Your task to perform on an android device: Search for Mexican restaurants on Maps Image 0: 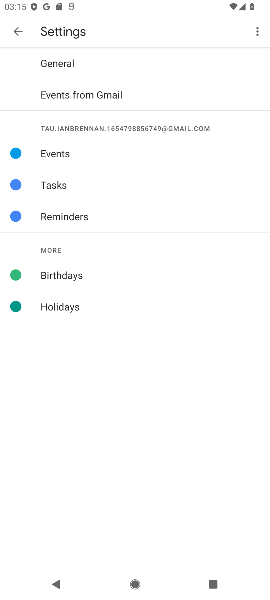
Step 0: press home button
Your task to perform on an android device: Search for Mexican restaurants on Maps Image 1: 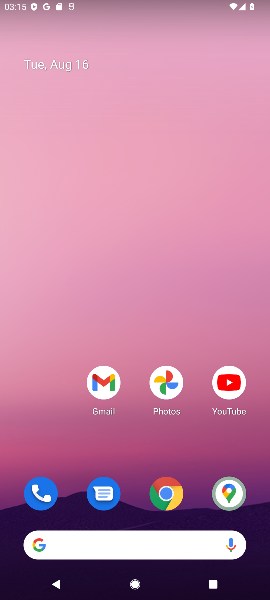
Step 1: drag from (71, 465) to (57, 154)
Your task to perform on an android device: Search for Mexican restaurants on Maps Image 2: 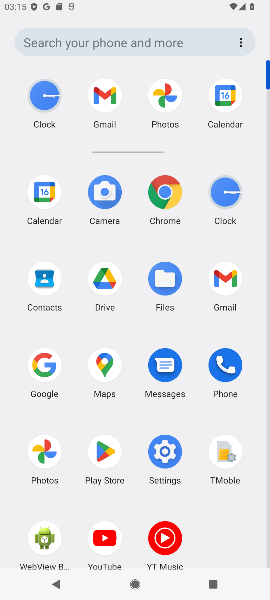
Step 2: click (104, 364)
Your task to perform on an android device: Search for Mexican restaurants on Maps Image 3: 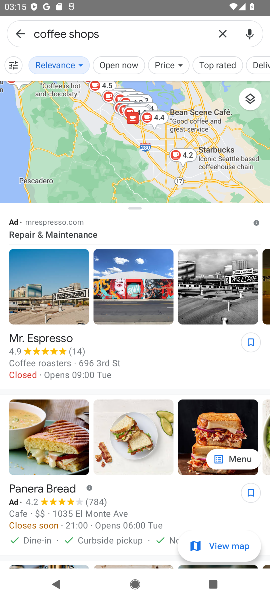
Step 3: click (219, 27)
Your task to perform on an android device: Search for Mexican restaurants on Maps Image 4: 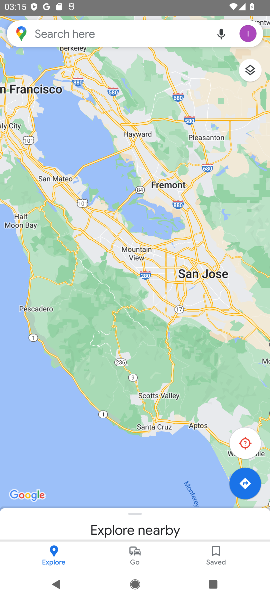
Step 4: click (146, 30)
Your task to perform on an android device: Search for Mexican restaurants on Maps Image 5: 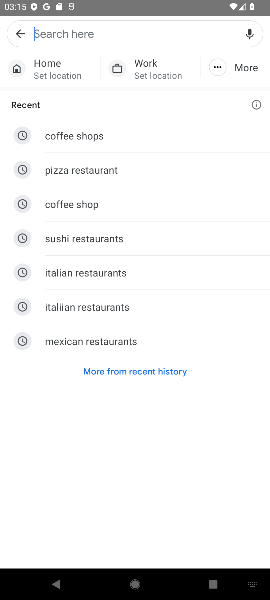
Step 5: type "mexican restaurants"
Your task to perform on an android device: Search for Mexican restaurants on Maps Image 6: 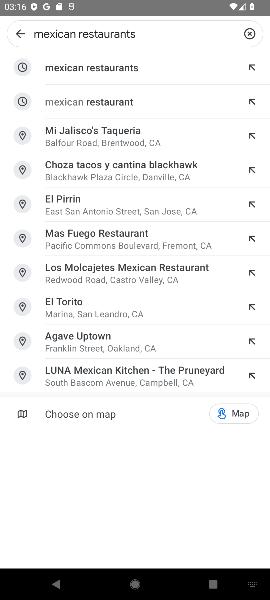
Step 6: click (147, 66)
Your task to perform on an android device: Search for Mexican restaurants on Maps Image 7: 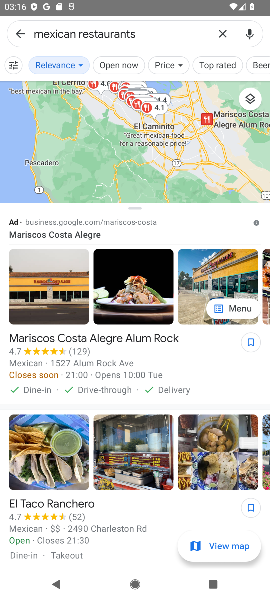
Step 7: task complete